Your task to perform on an android device: open app "Google Play services" Image 0: 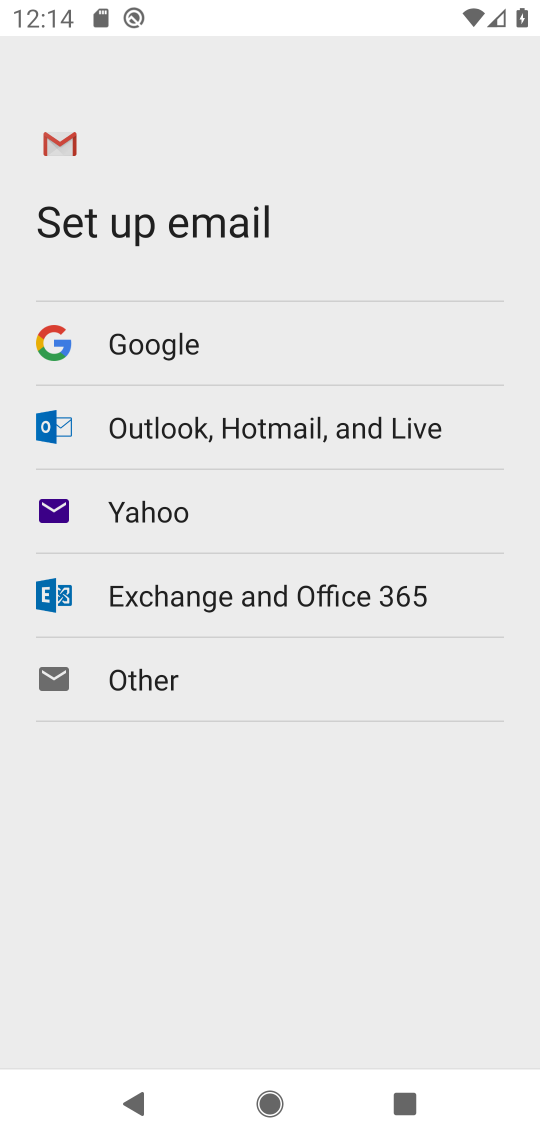
Step 0: press home button
Your task to perform on an android device: open app "Google Play services" Image 1: 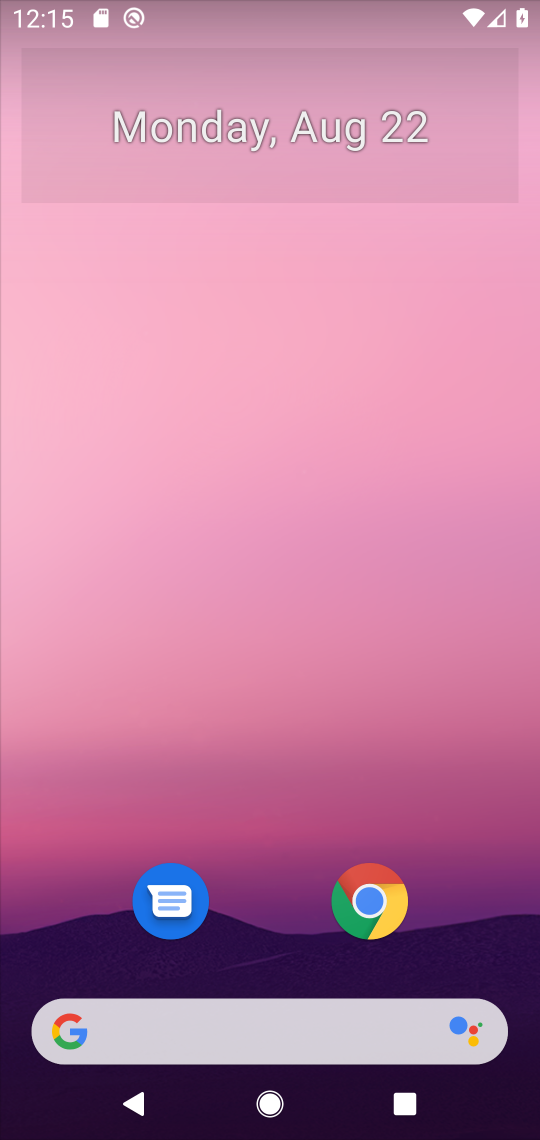
Step 1: drag from (270, 972) to (329, 165)
Your task to perform on an android device: open app "Google Play services" Image 2: 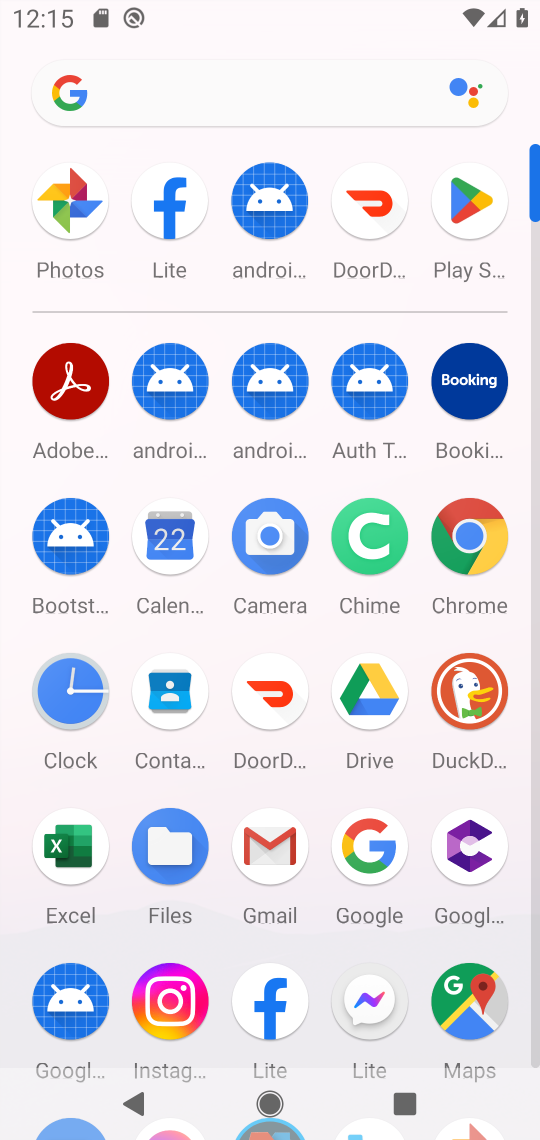
Step 2: click (448, 205)
Your task to perform on an android device: open app "Google Play services" Image 3: 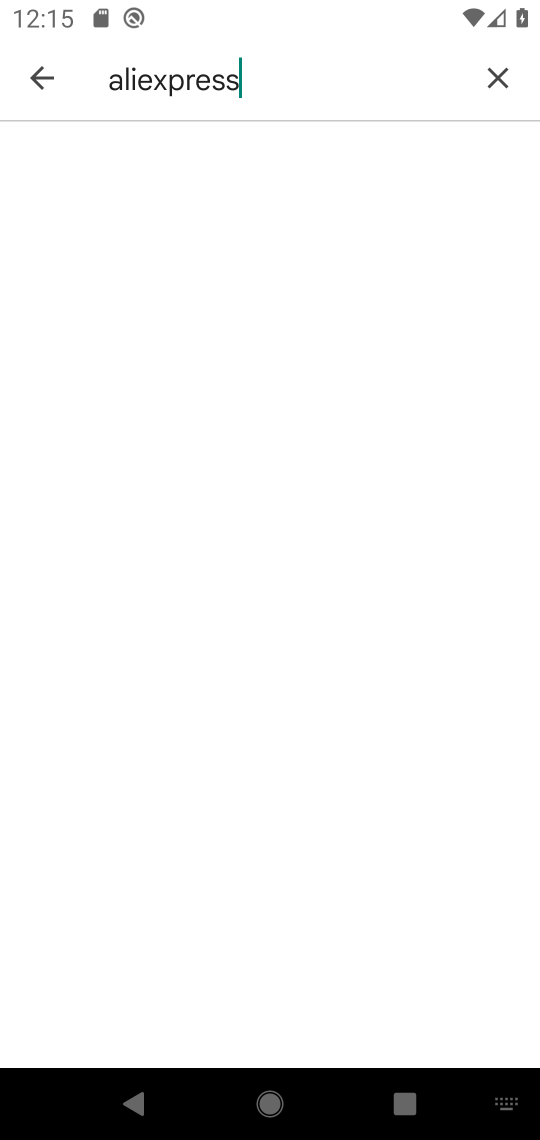
Step 3: click (489, 96)
Your task to perform on an android device: open app "Google Play services" Image 4: 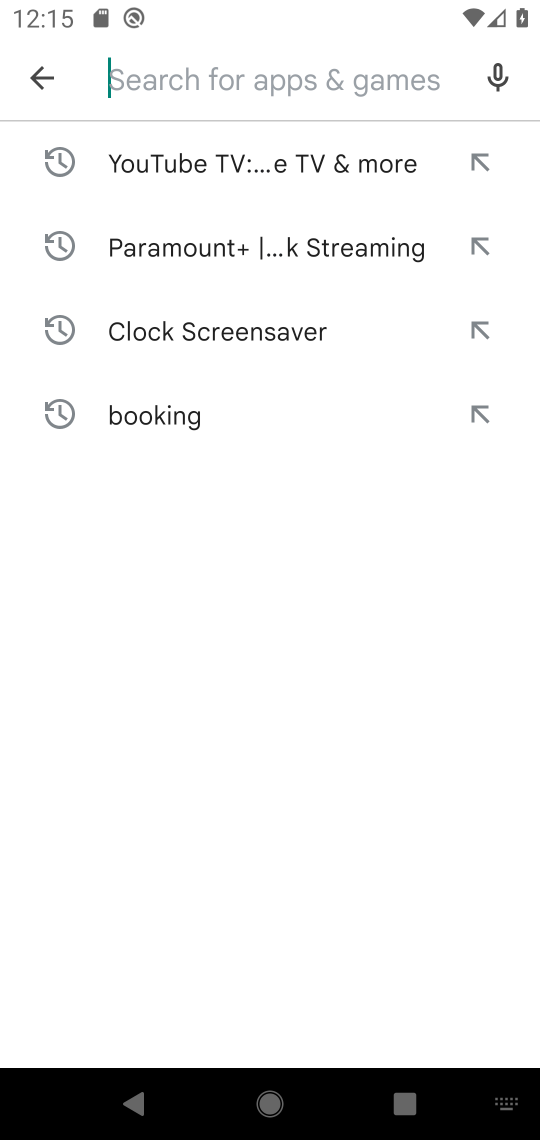
Step 4: type "google plar service"
Your task to perform on an android device: open app "Google Play services" Image 5: 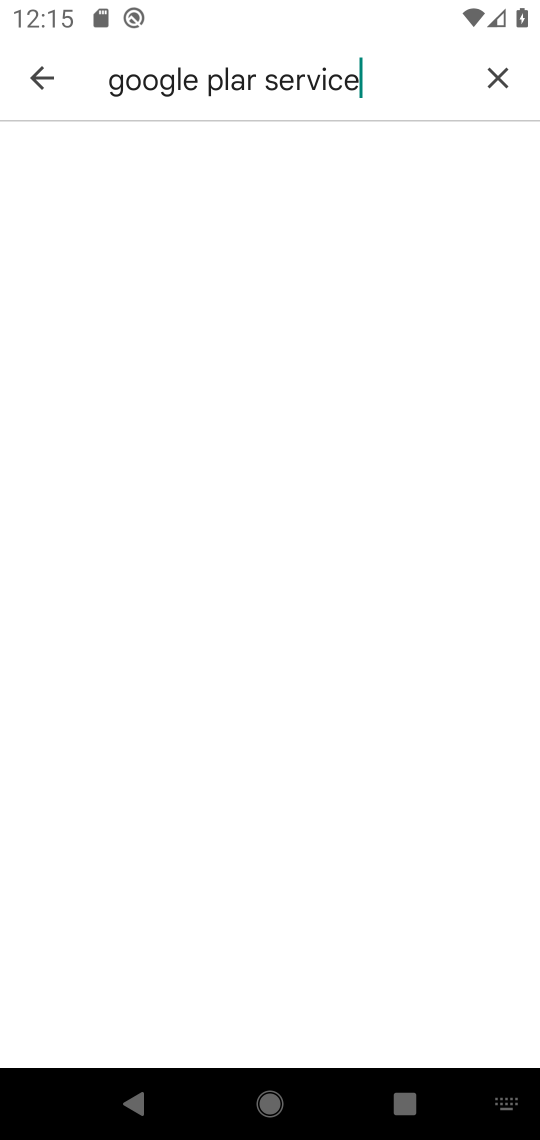
Step 5: task complete